Your task to perform on an android device: turn off location Image 0: 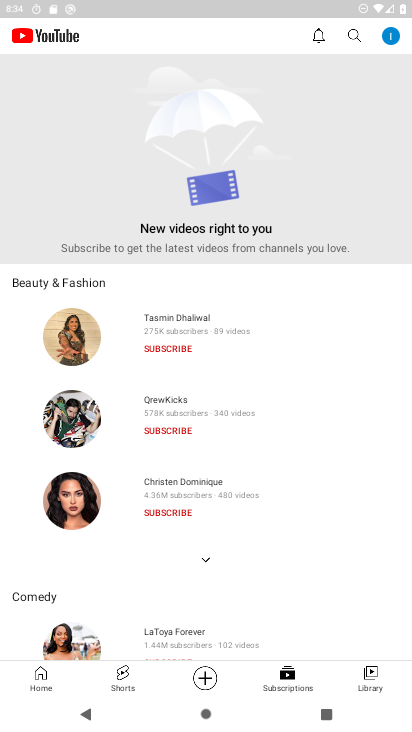
Step 0: press home button
Your task to perform on an android device: turn off location Image 1: 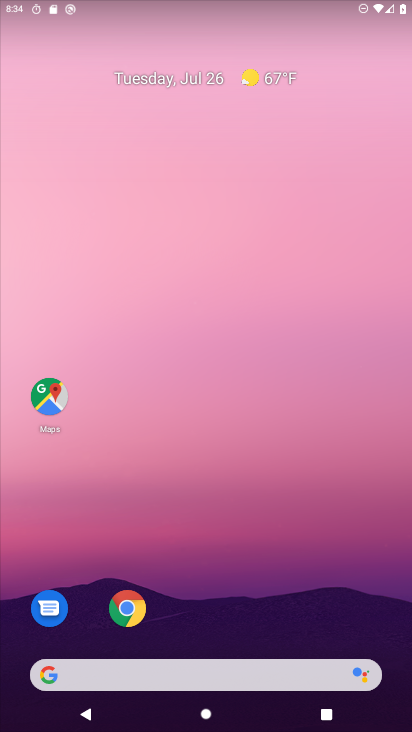
Step 1: drag from (237, 630) to (287, 176)
Your task to perform on an android device: turn off location Image 2: 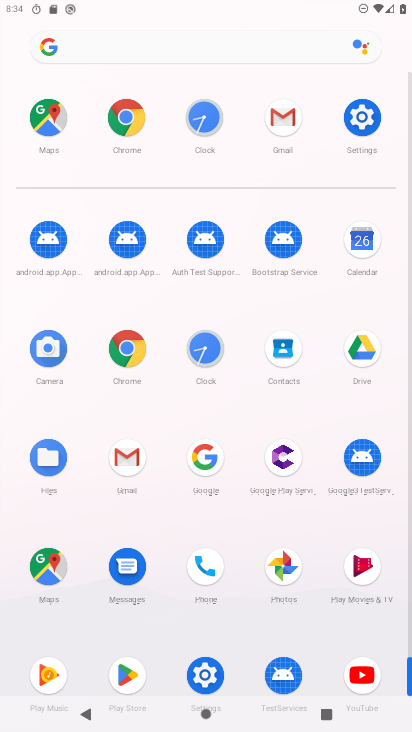
Step 2: click (217, 666)
Your task to perform on an android device: turn off location Image 3: 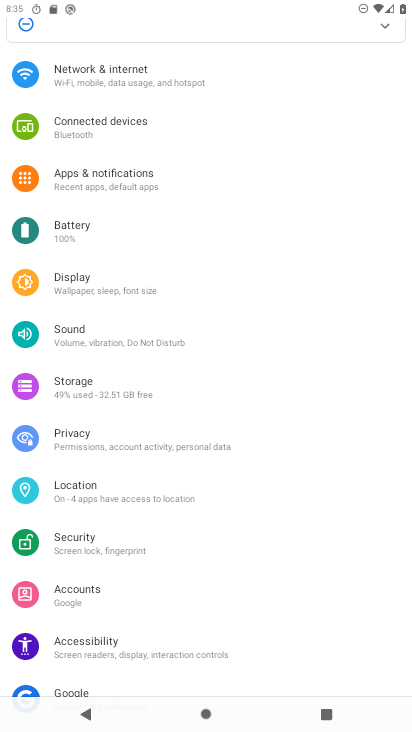
Step 3: click (154, 490)
Your task to perform on an android device: turn off location Image 4: 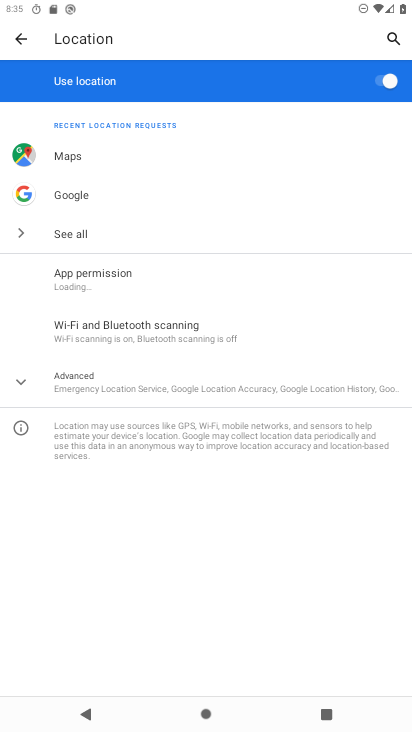
Step 4: click (366, 82)
Your task to perform on an android device: turn off location Image 5: 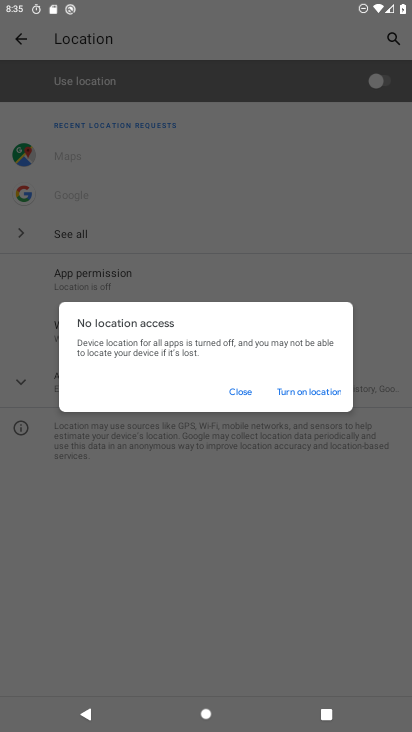
Step 5: click (242, 391)
Your task to perform on an android device: turn off location Image 6: 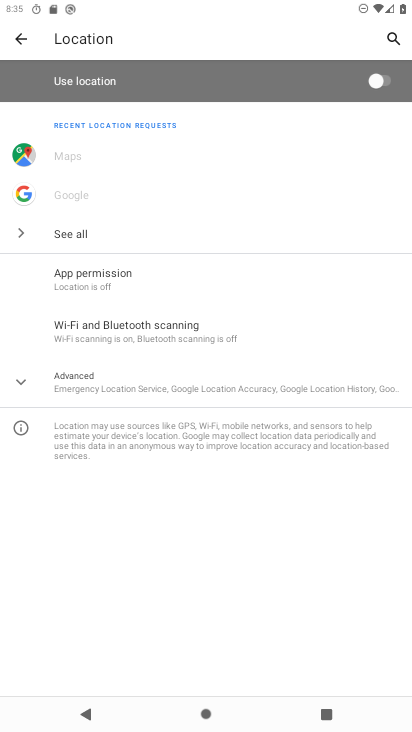
Step 6: task complete